Your task to perform on an android device: Is it going to rain this weekend? Image 0: 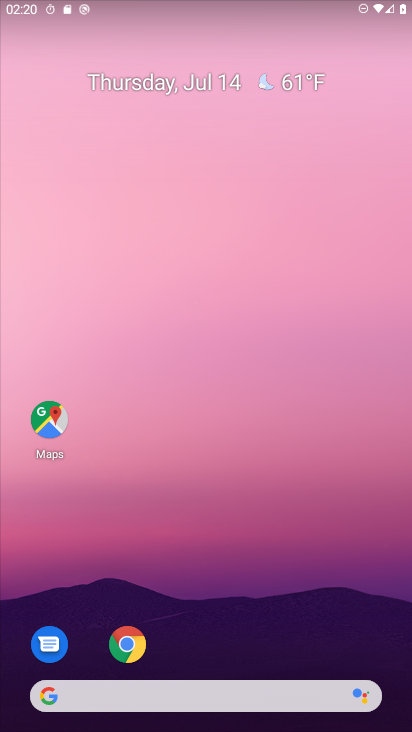
Step 0: click (311, 75)
Your task to perform on an android device: Is it going to rain this weekend? Image 1: 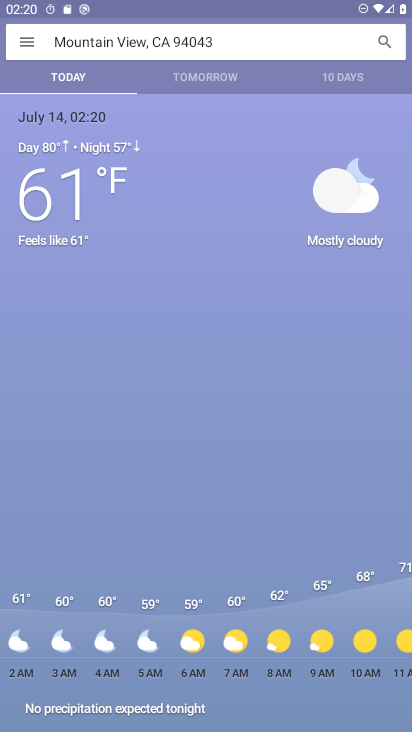
Step 1: click (327, 74)
Your task to perform on an android device: Is it going to rain this weekend? Image 2: 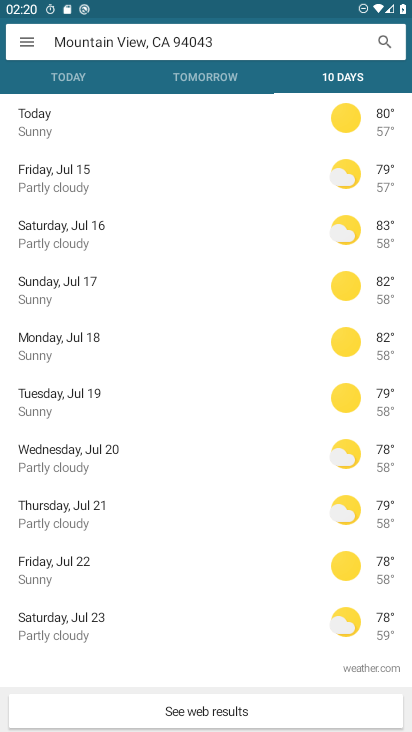
Step 2: task complete